Your task to perform on an android device: Go to accessibility settings Image 0: 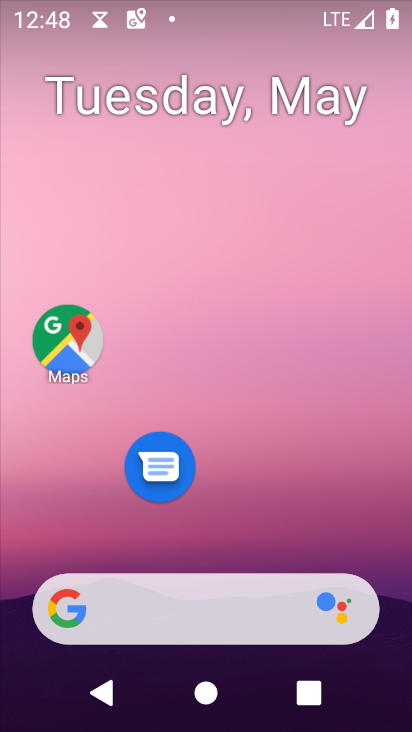
Step 0: drag from (326, 532) to (275, 81)
Your task to perform on an android device: Go to accessibility settings Image 1: 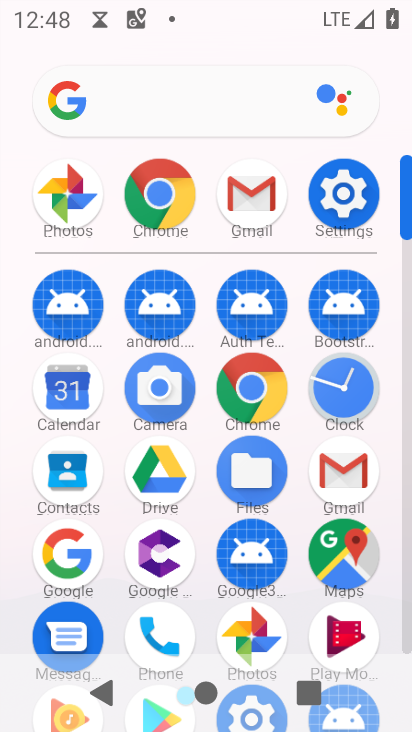
Step 1: click (348, 200)
Your task to perform on an android device: Go to accessibility settings Image 2: 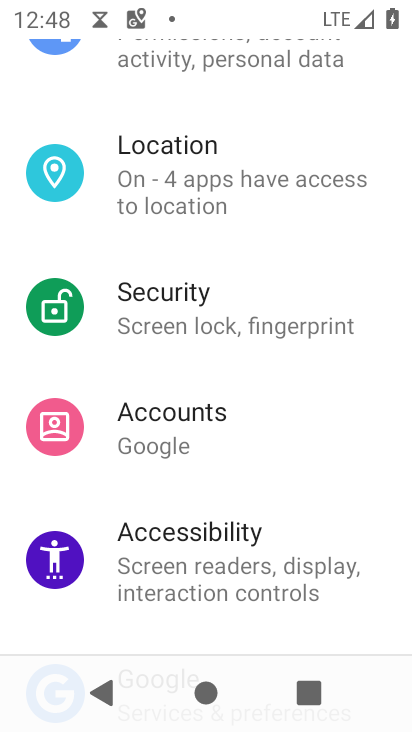
Step 2: click (225, 573)
Your task to perform on an android device: Go to accessibility settings Image 3: 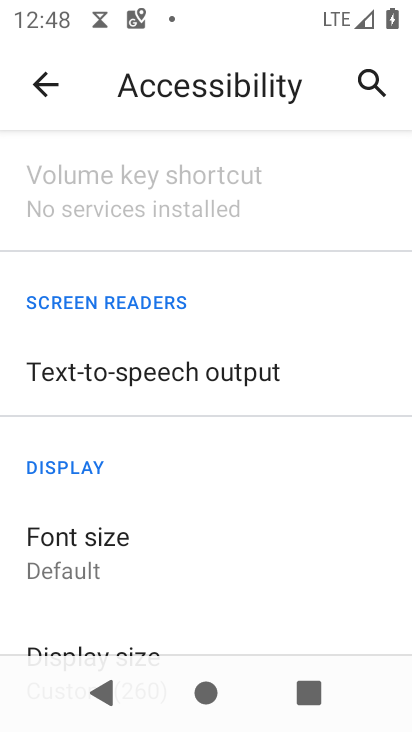
Step 3: task complete